Your task to perform on an android device: Open the phone app and click the voicemail tab. Image 0: 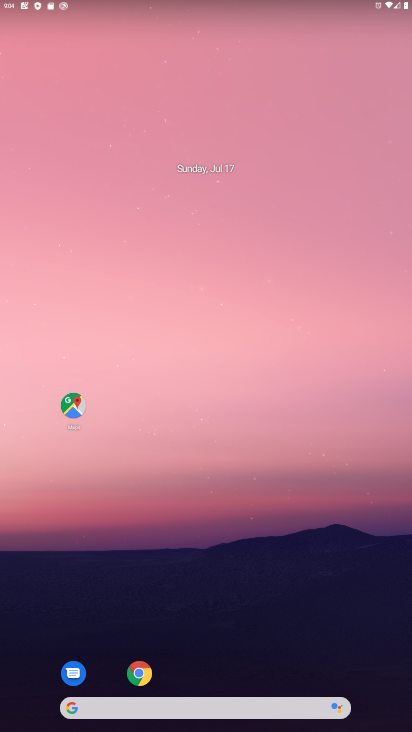
Step 0: drag from (319, 616) to (266, 114)
Your task to perform on an android device: Open the phone app and click the voicemail tab. Image 1: 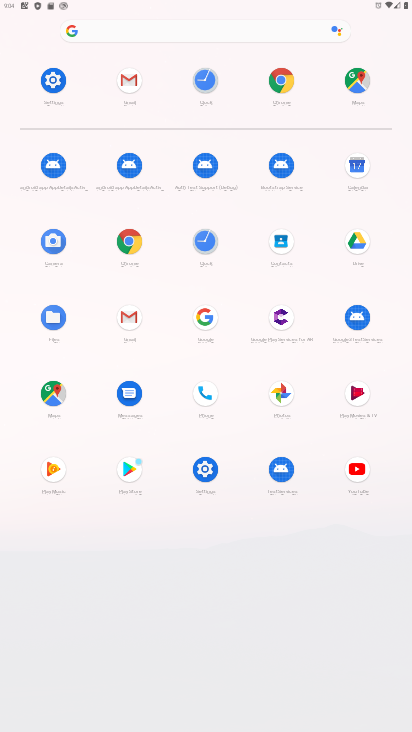
Step 1: click (194, 387)
Your task to perform on an android device: Open the phone app and click the voicemail tab. Image 2: 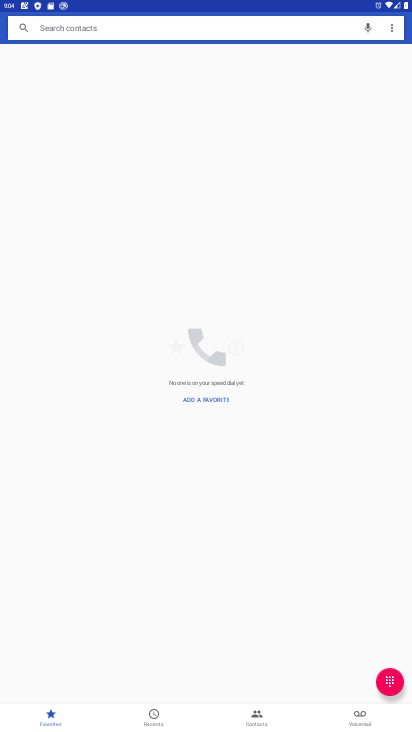
Step 2: click (374, 721)
Your task to perform on an android device: Open the phone app and click the voicemail tab. Image 3: 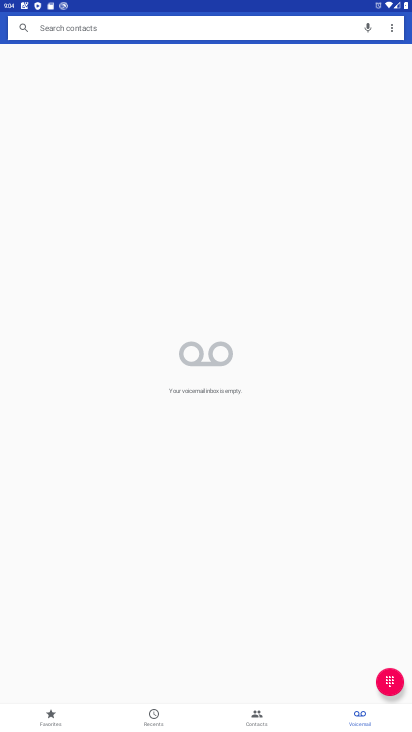
Step 3: task complete